Your task to perform on an android device: Open settings Image 0: 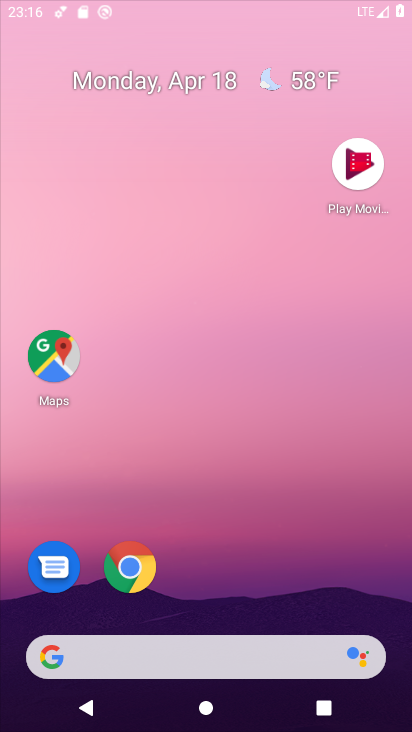
Step 0: click (264, 145)
Your task to perform on an android device: Open settings Image 1: 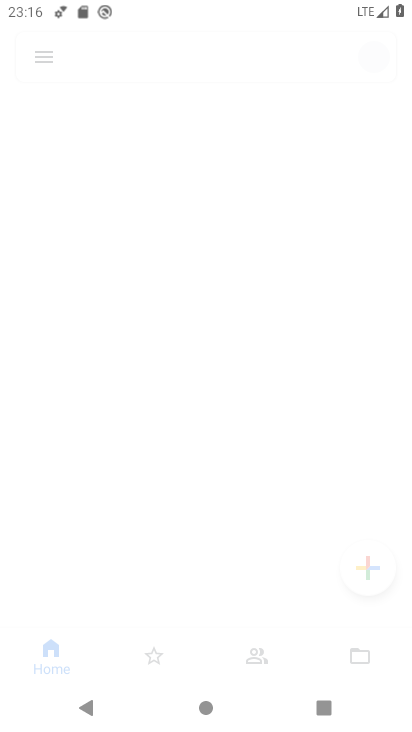
Step 1: drag from (194, 602) to (228, 94)
Your task to perform on an android device: Open settings Image 2: 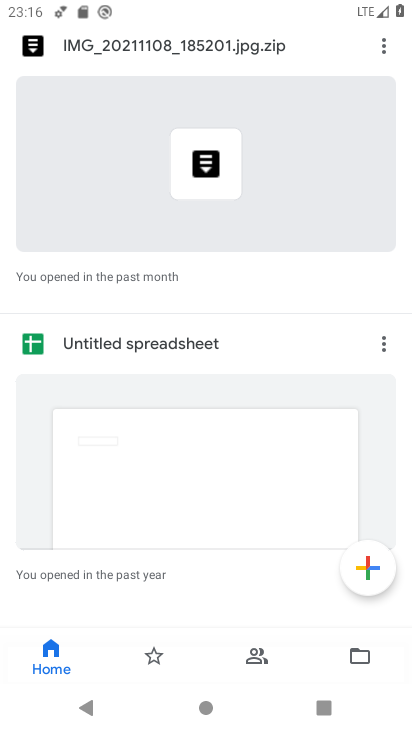
Step 2: press home button
Your task to perform on an android device: Open settings Image 3: 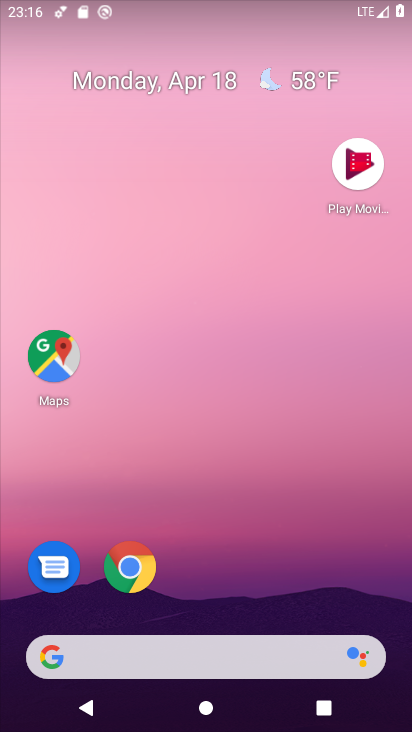
Step 3: drag from (231, 584) to (239, 46)
Your task to perform on an android device: Open settings Image 4: 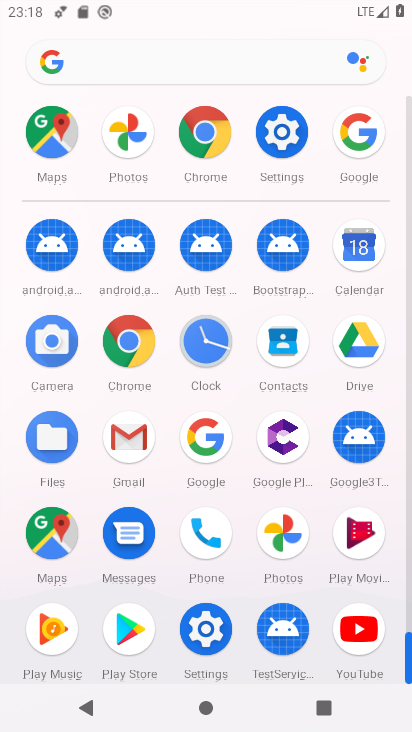
Step 4: click (195, 619)
Your task to perform on an android device: Open settings Image 5: 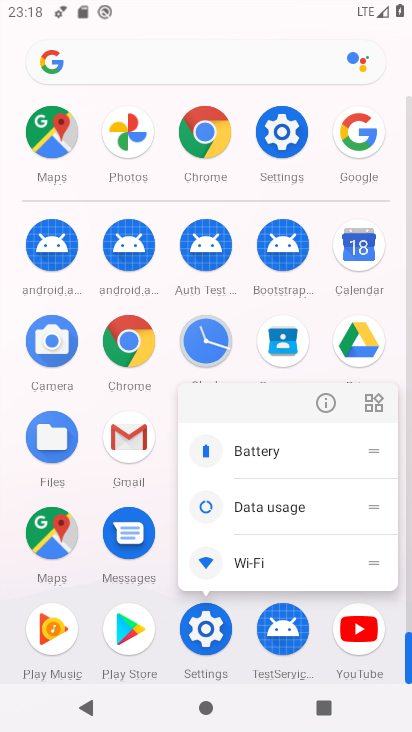
Step 5: click (320, 403)
Your task to perform on an android device: Open settings Image 6: 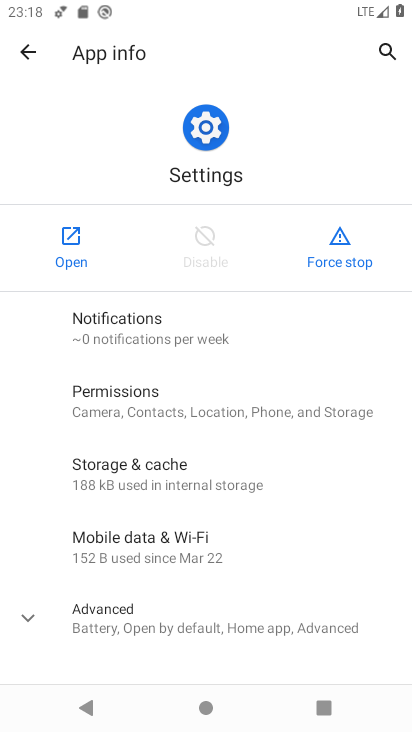
Step 6: drag from (191, 568) to (290, 58)
Your task to perform on an android device: Open settings Image 7: 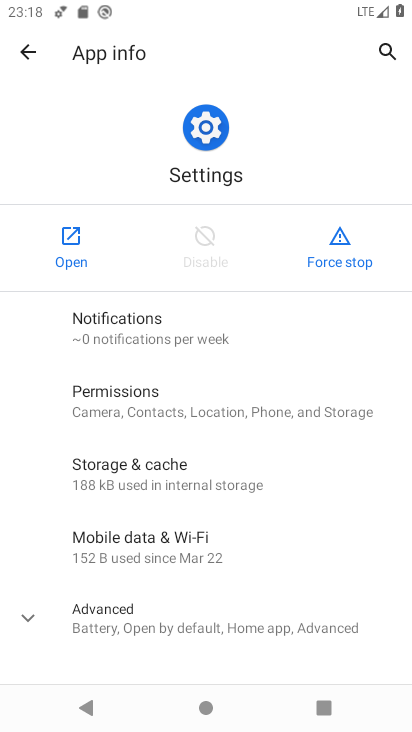
Step 7: drag from (118, 536) to (229, 207)
Your task to perform on an android device: Open settings Image 8: 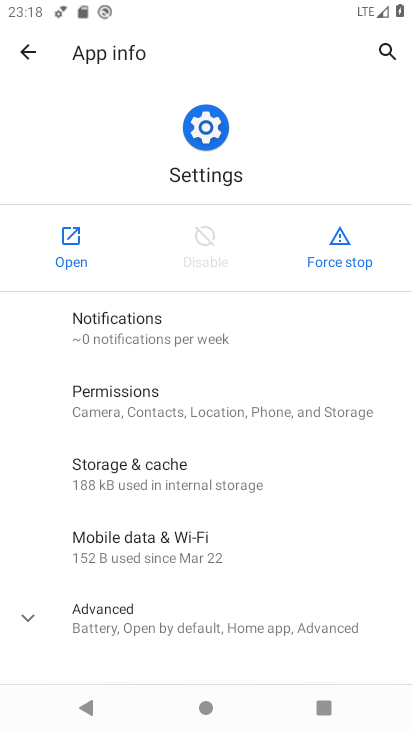
Step 8: click (75, 237)
Your task to perform on an android device: Open settings Image 9: 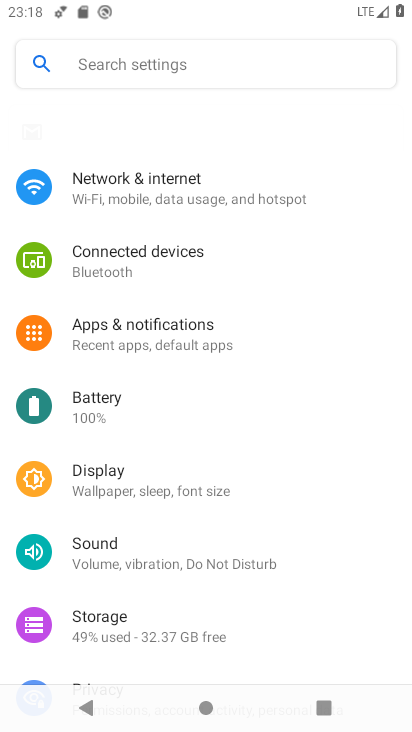
Step 9: task complete